Your task to perform on an android device: Open eBay Image 0: 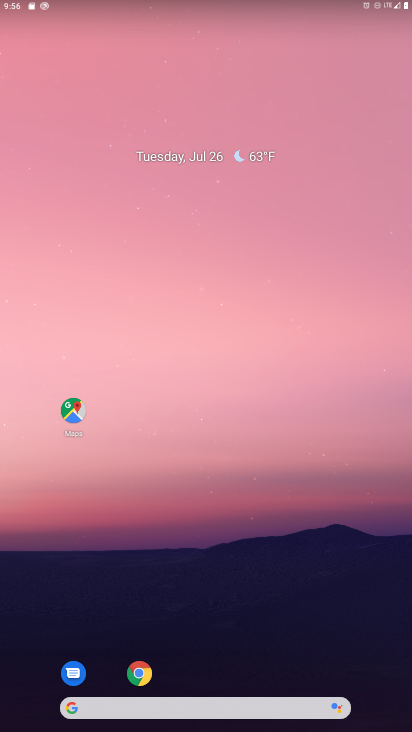
Step 0: drag from (347, 648) to (35, 11)
Your task to perform on an android device: Open eBay Image 1: 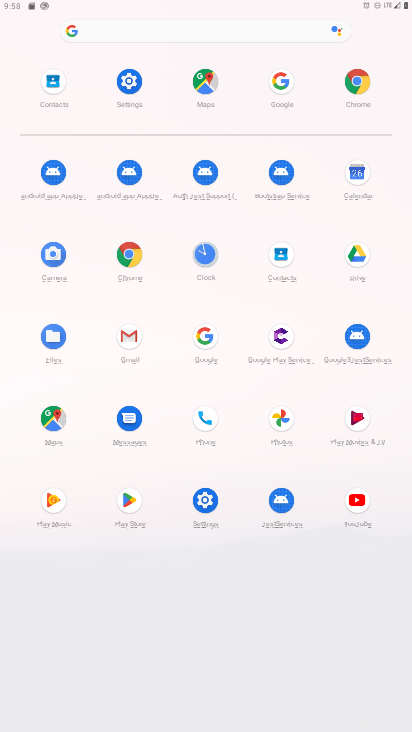
Step 1: click (201, 340)
Your task to perform on an android device: Open eBay Image 2: 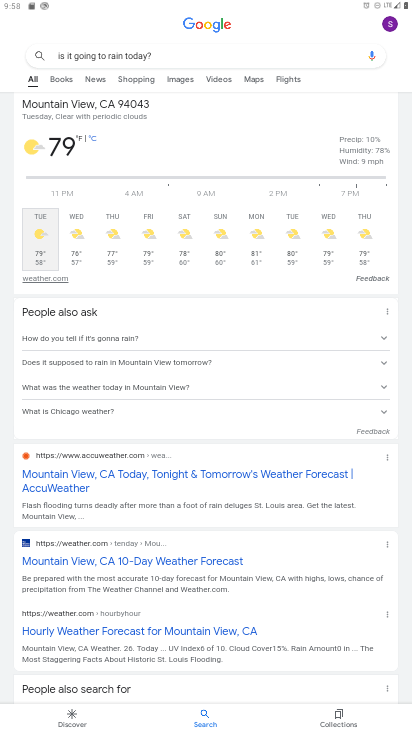
Step 2: press back button
Your task to perform on an android device: Open eBay Image 3: 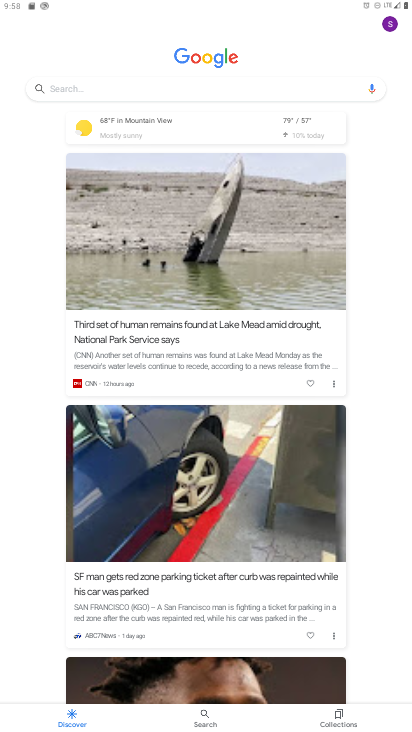
Step 3: click (98, 85)
Your task to perform on an android device: Open eBay Image 4: 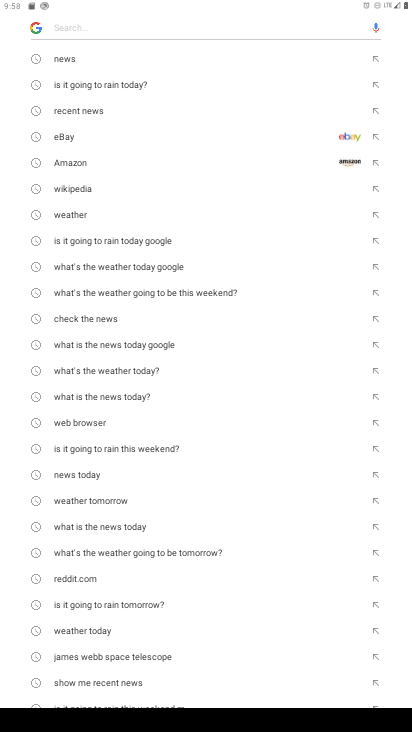
Step 4: click (67, 140)
Your task to perform on an android device: Open eBay Image 5: 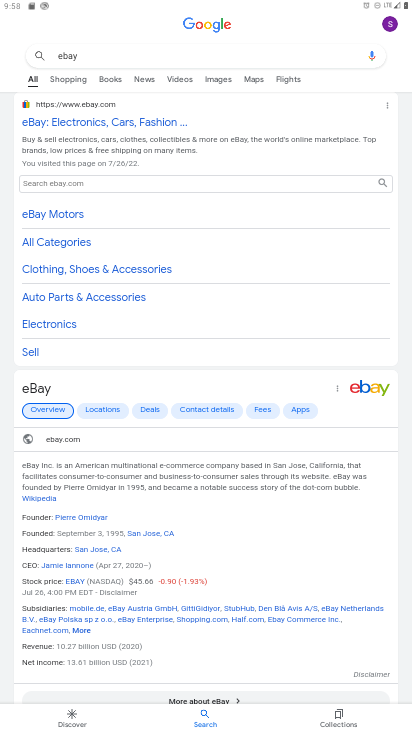
Step 5: task complete